Your task to perform on an android device: Turn on the flashlight Image 0: 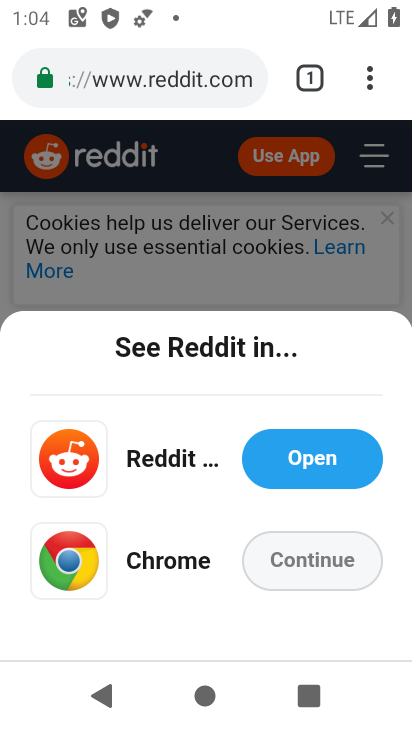
Step 0: press home button
Your task to perform on an android device: Turn on the flashlight Image 1: 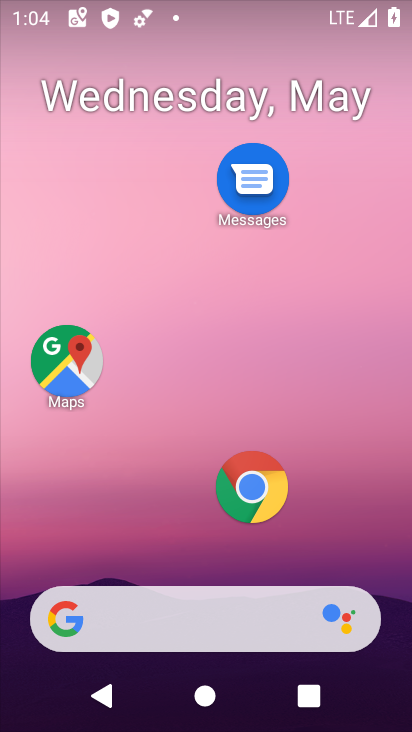
Step 1: drag from (169, 573) to (252, 86)
Your task to perform on an android device: Turn on the flashlight Image 2: 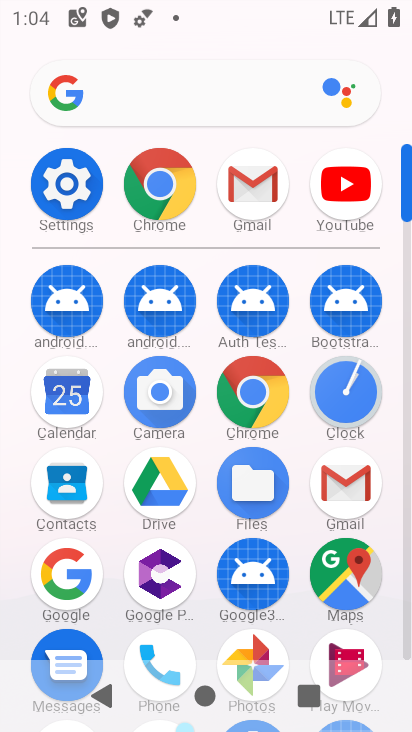
Step 2: click (66, 199)
Your task to perform on an android device: Turn on the flashlight Image 3: 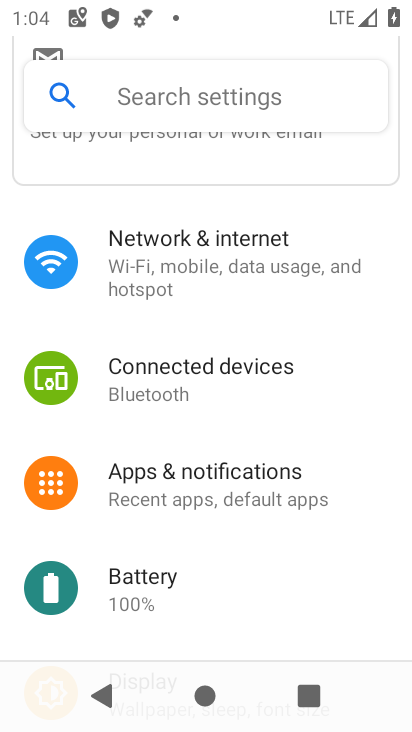
Step 3: click (179, 111)
Your task to perform on an android device: Turn on the flashlight Image 4: 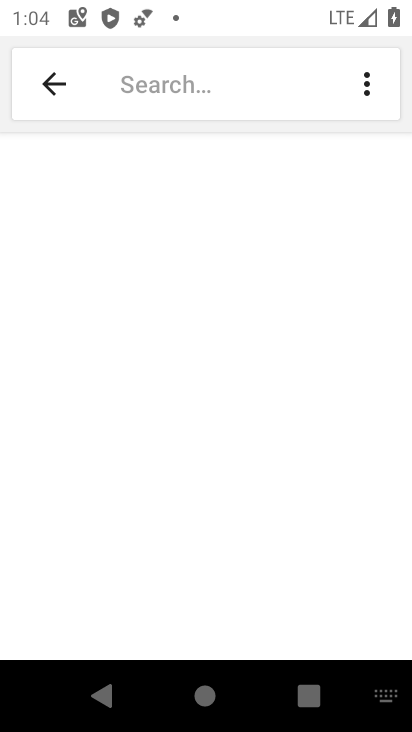
Step 4: type "flashlight"
Your task to perform on an android device: Turn on the flashlight Image 5: 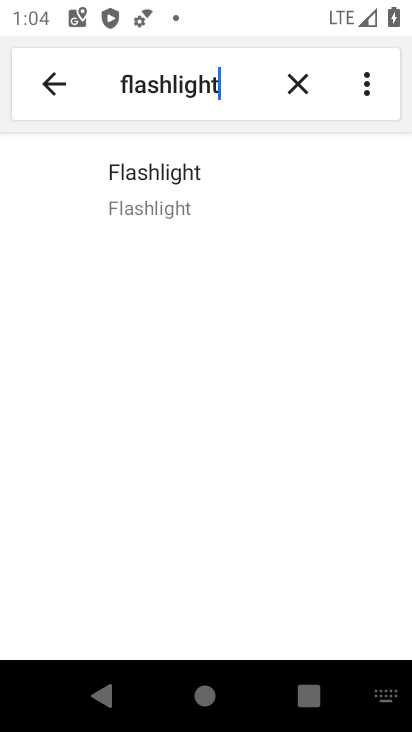
Step 5: click (175, 171)
Your task to perform on an android device: Turn on the flashlight Image 6: 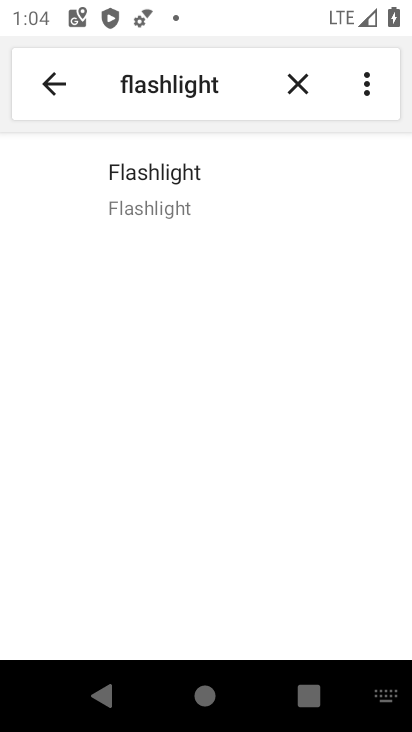
Step 6: click (176, 171)
Your task to perform on an android device: Turn on the flashlight Image 7: 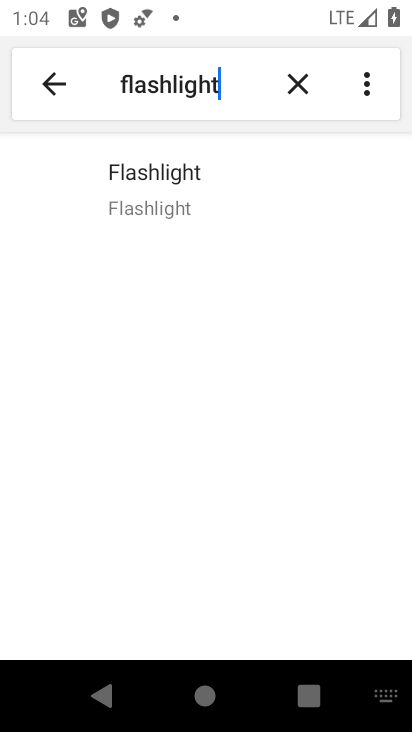
Step 7: click (153, 188)
Your task to perform on an android device: Turn on the flashlight Image 8: 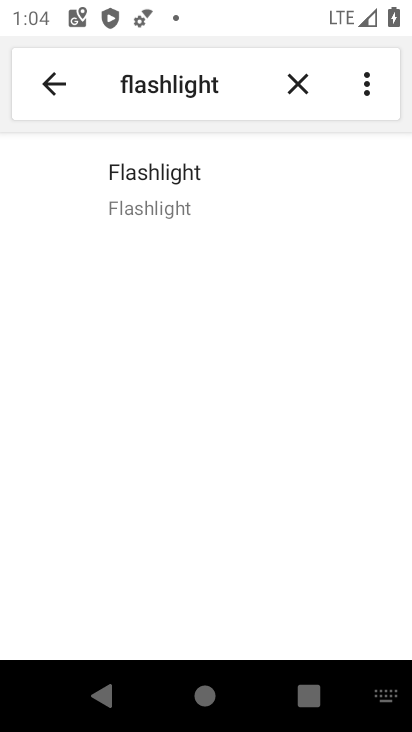
Step 8: task complete